Your task to perform on an android device: Open calendar and show me the third week of next month Image 0: 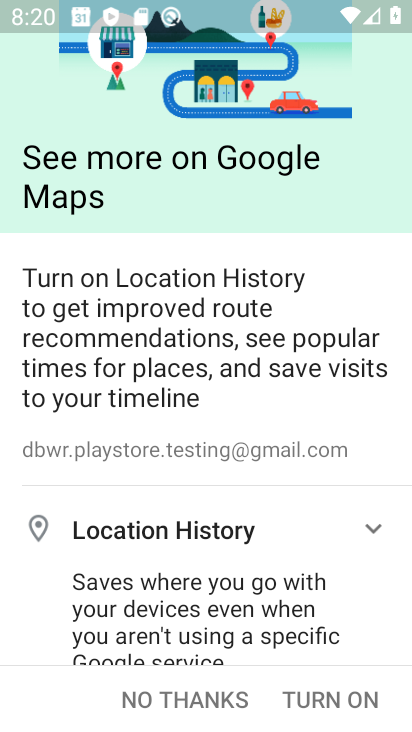
Step 0: press home button
Your task to perform on an android device: Open calendar and show me the third week of next month Image 1: 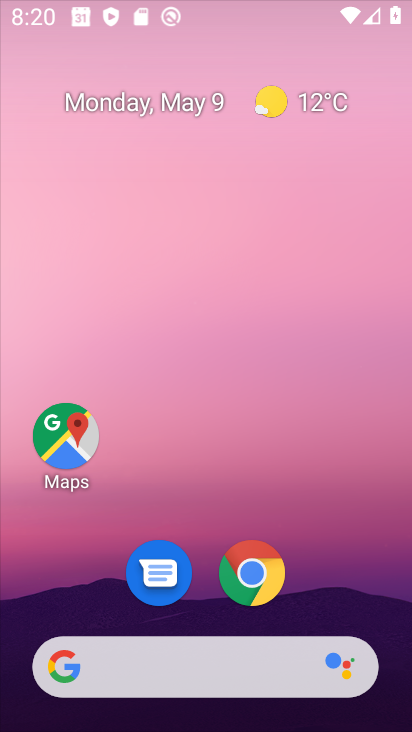
Step 1: drag from (192, 613) to (263, 42)
Your task to perform on an android device: Open calendar and show me the third week of next month Image 2: 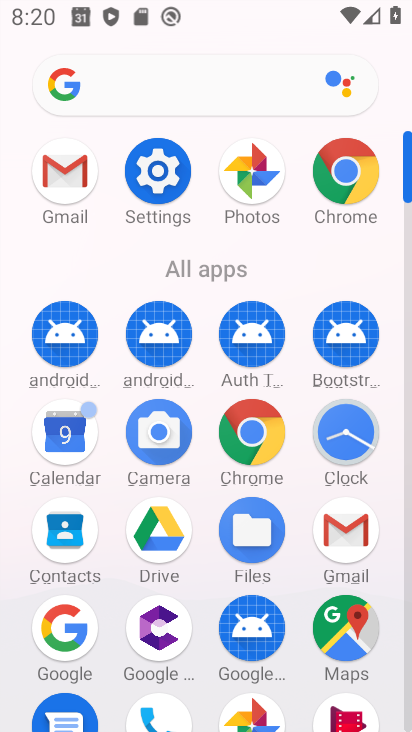
Step 2: click (69, 441)
Your task to perform on an android device: Open calendar and show me the third week of next month Image 3: 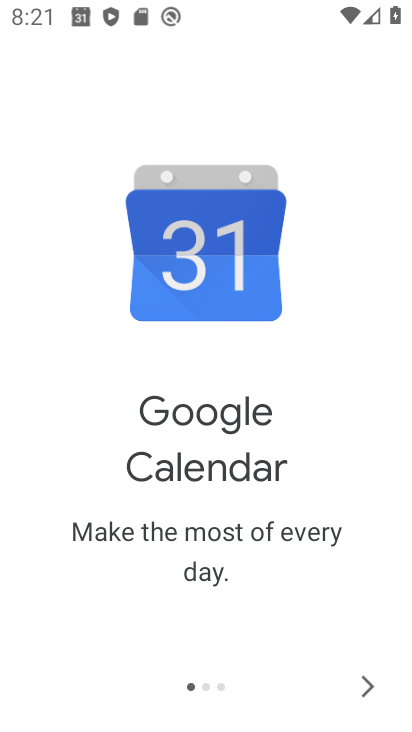
Step 3: click (381, 686)
Your task to perform on an android device: Open calendar and show me the third week of next month Image 4: 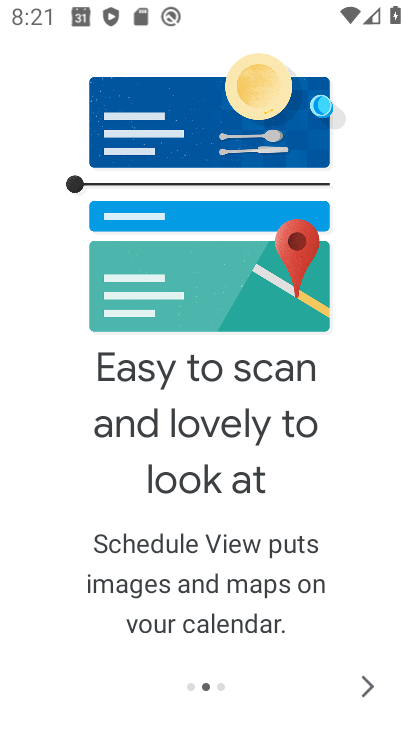
Step 4: click (371, 684)
Your task to perform on an android device: Open calendar and show me the third week of next month Image 5: 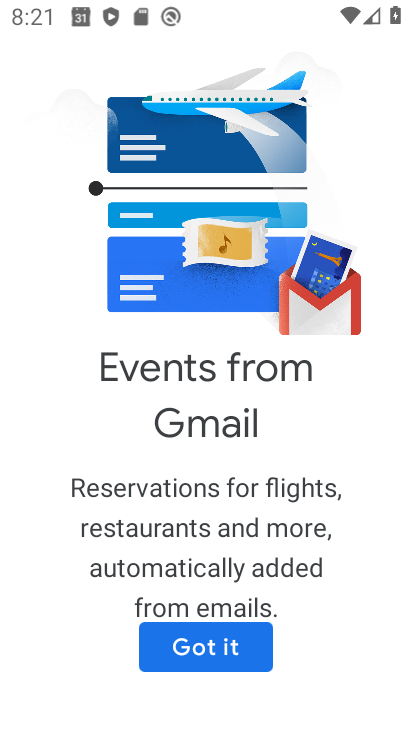
Step 5: click (219, 644)
Your task to perform on an android device: Open calendar and show me the third week of next month Image 6: 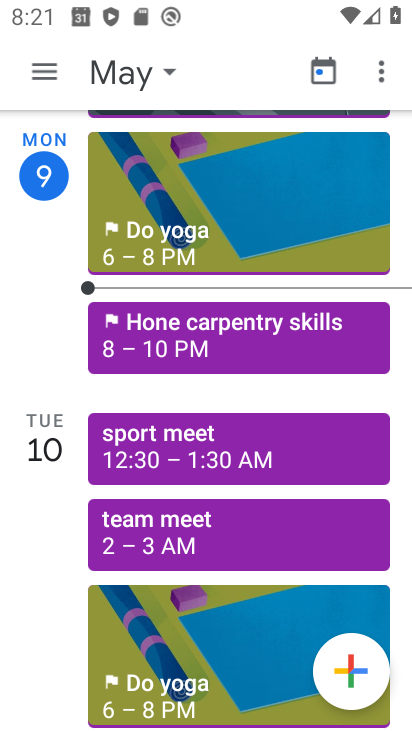
Step 6: click (148, 85)
Your task to perform on an android device: Open calendar and show me the third week of next month Image 7: 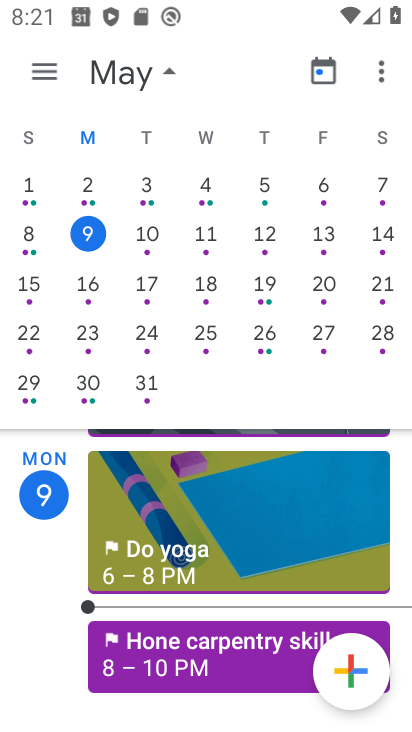
Step 7: drag from (352, 285) to (24, 344)
Your task to perform on an android device: Open calendar and show me the third week of next month Image 8: 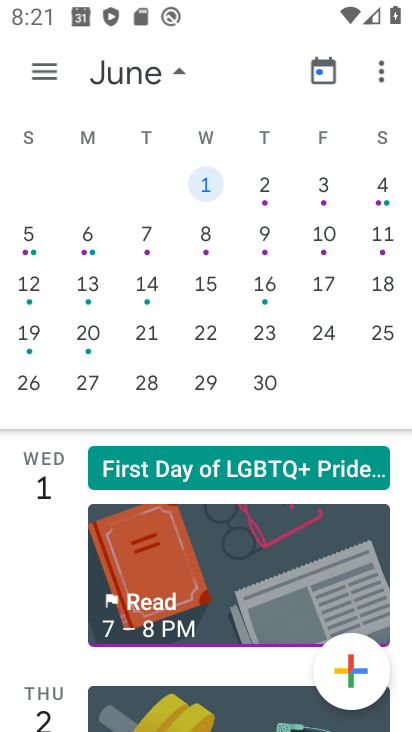
Step 8: click (41, 332)
Your task to perform on an android device: Open calendar and show me the third week of next month Image 9: 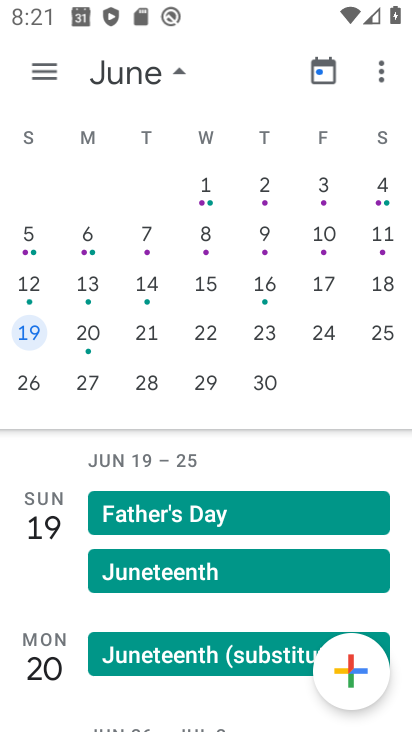
Step 9: task complete